Your task to perform on an android device: Search for sushi restaurants on Maps Image 0: 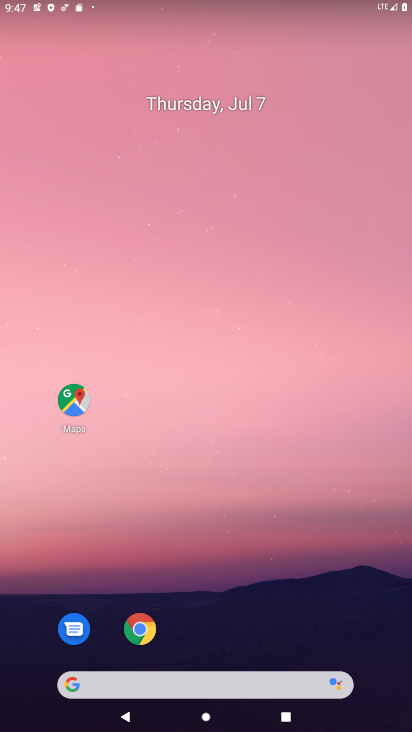
Step 0: drag from (237, 649) to (276, 72)
Your task to perform on an android device: Search for sushi restaurants on Maps Image 1: 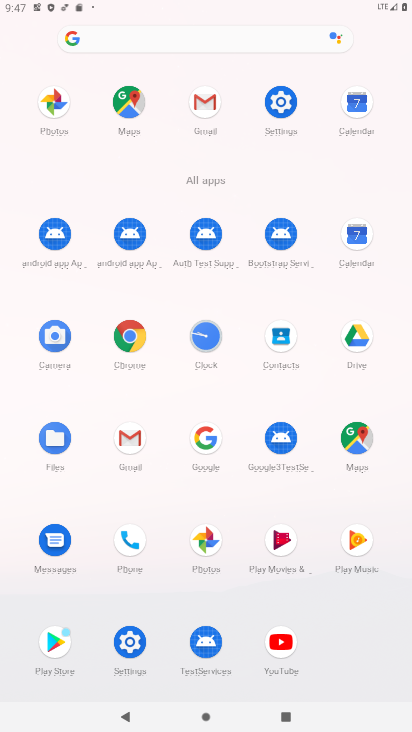
Step 1: click (360, 437)
Your task to perform on an android device: Search for sushi restaurants on Maps Image 2: 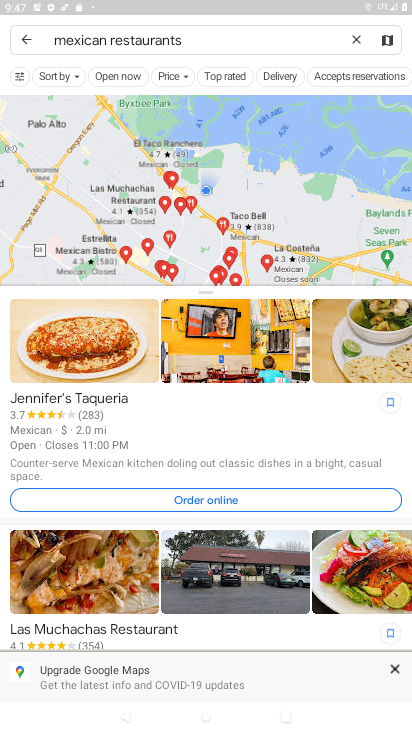
Step 2: click (254, 32)
Your task to perform on an android device: Search for sushi restaurants on Maps Image 3: 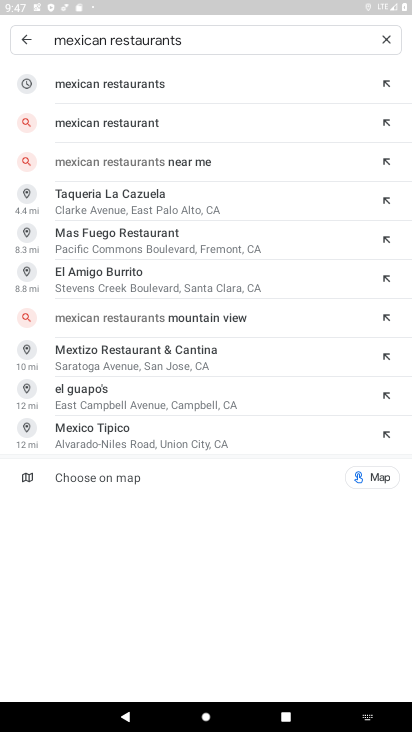
Step 3: click (382, 40)
Your task to perform on an android device: Search for sushi restaurants on Maps Image 4: 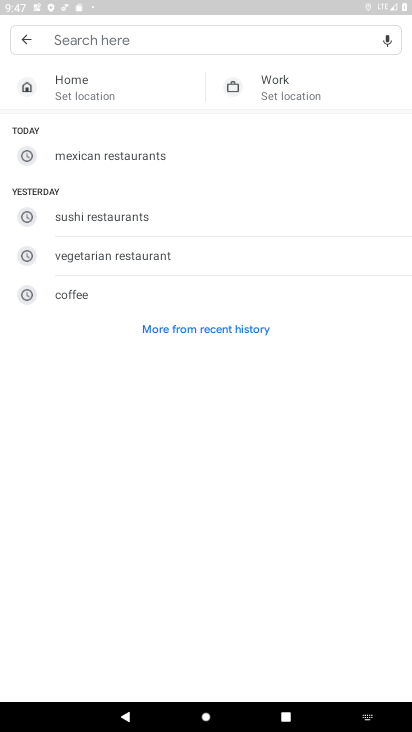
Step 4: click (167, 41)
Your task to perform on an android device: Search for sushi restaurants on Maps Image 5: 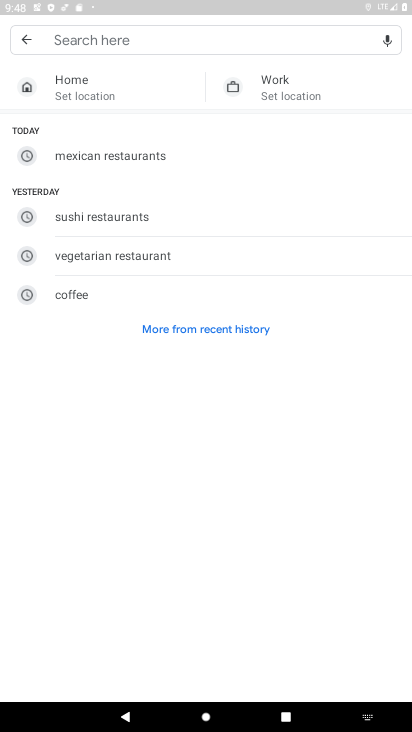
Step 5: type "sushi restaurants"
Your task to perform on an android device: Search for sushi restaurants on Maps Image 6: 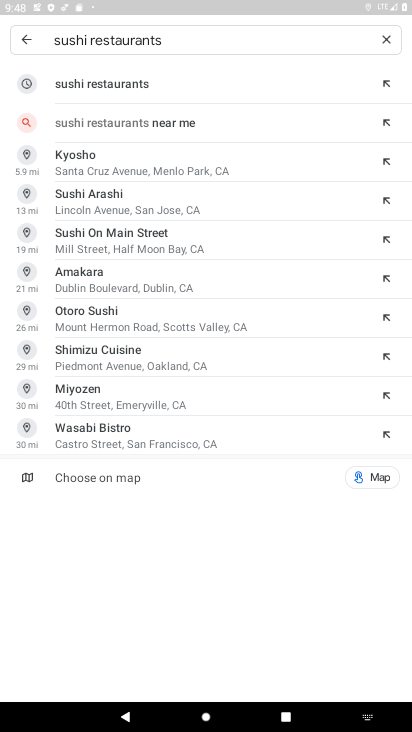
Step 6: click (192, 77)
Your task to perform on an android device: Search for sushi restaurants on Maps Image 7: 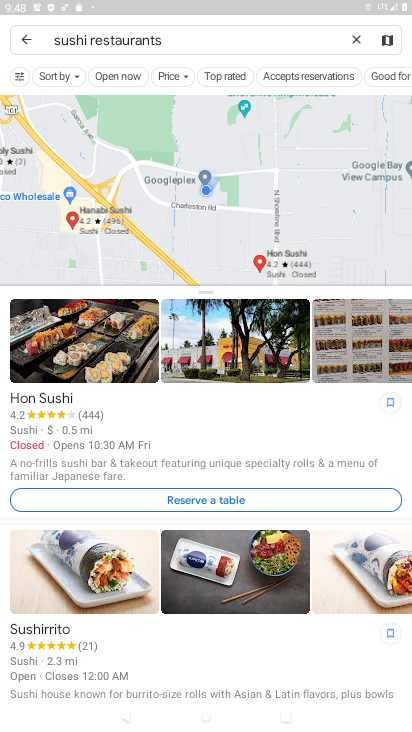
Step 7: task complete